Your task to perform on an android device: set an alarm Image 0: 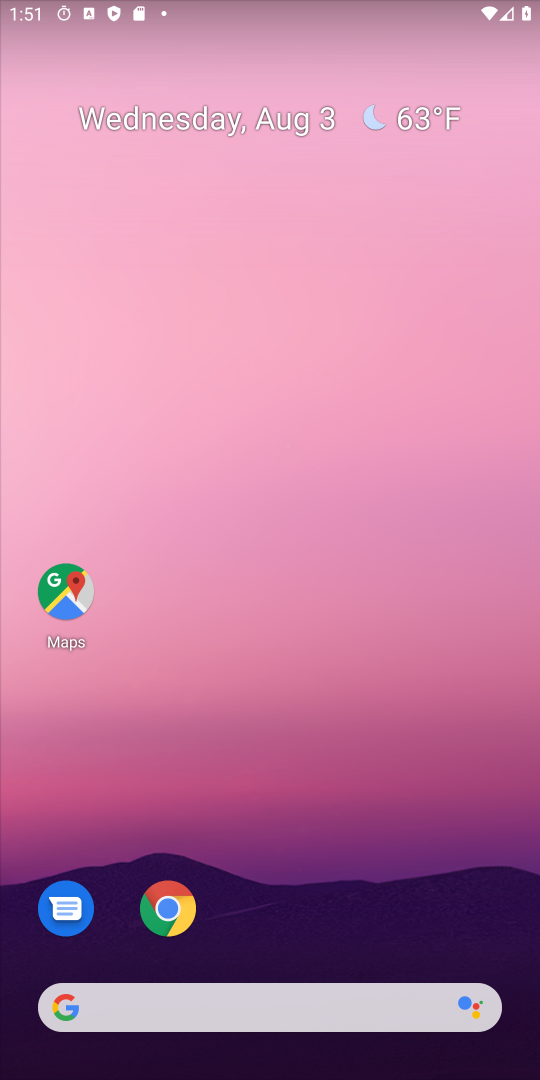
Step 0: drag from (289, 910) to (355, 5)
Your task to perform on an android device: set an alarm Image 1: 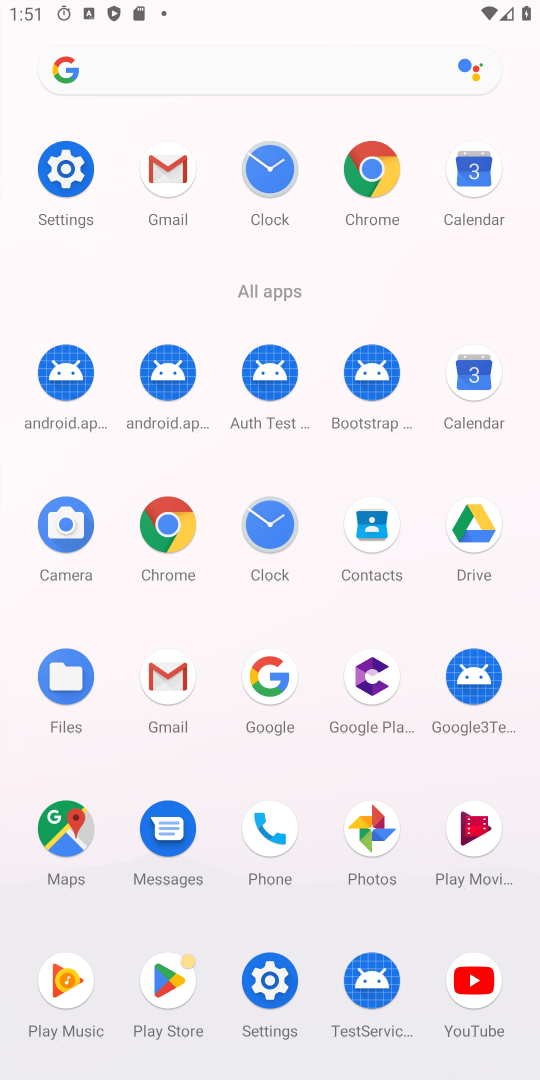
Step 1: click (278, 542)
Your task to perform on an android device: set an alarm Image 2: 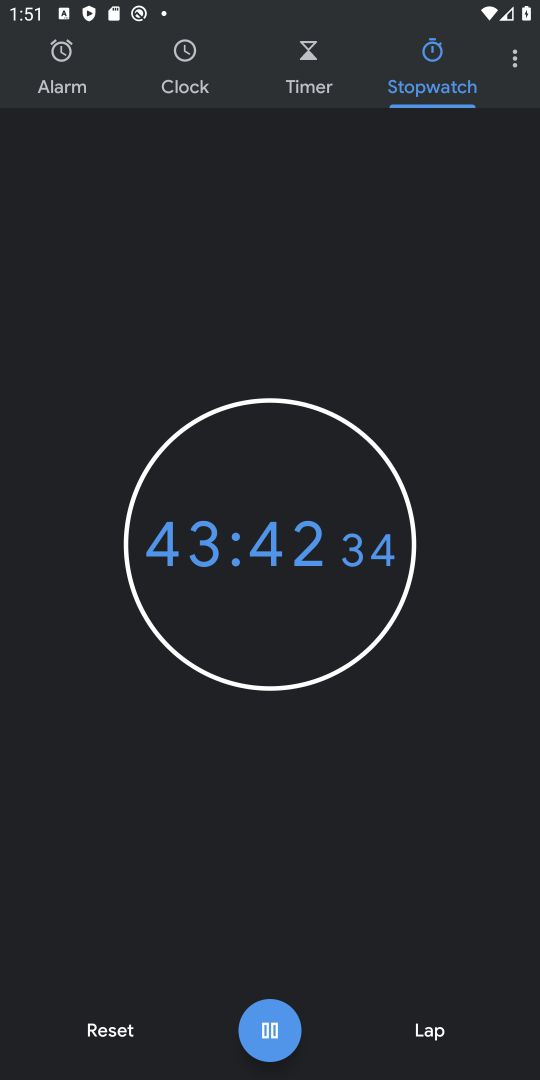
Step 2: click (87, 78)
Your task to perform on an android device: set an alarm Image 3: 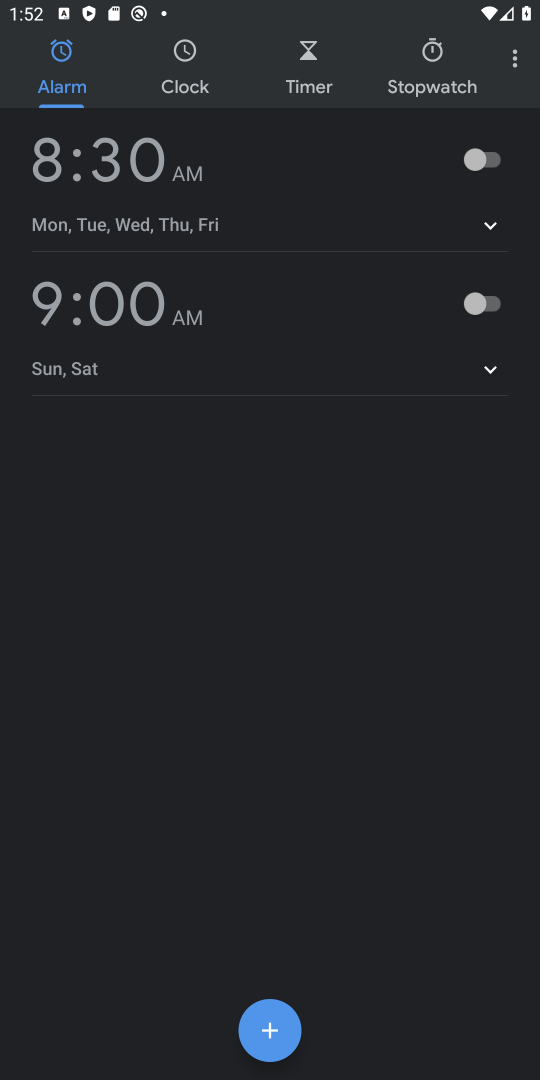
Step 3: click (476, 300)
Your task to perform on an android device: set an alarm Image 4: 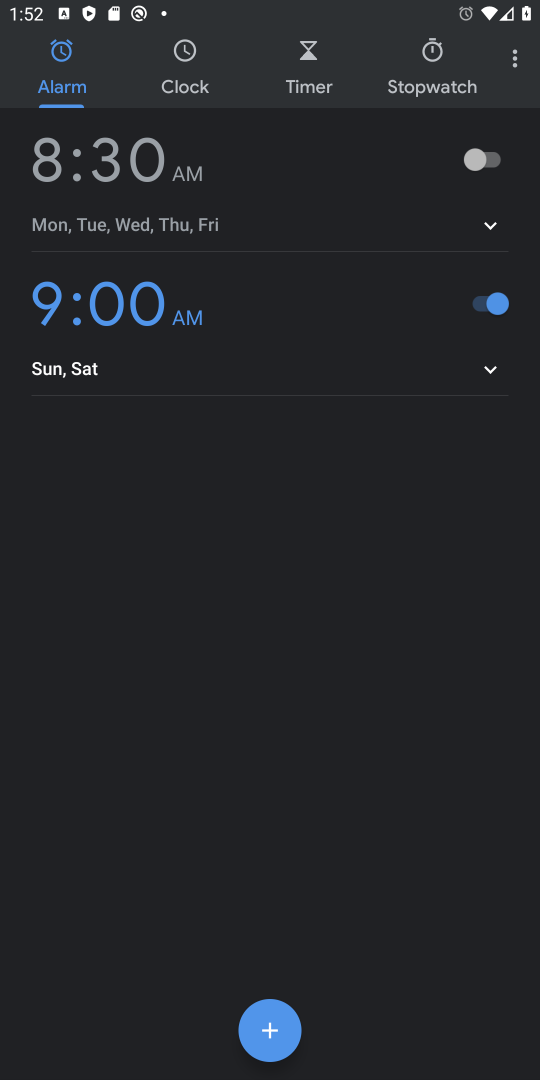
Step 4: task complete